Your task to perform on an android device: Open the map Image 0: 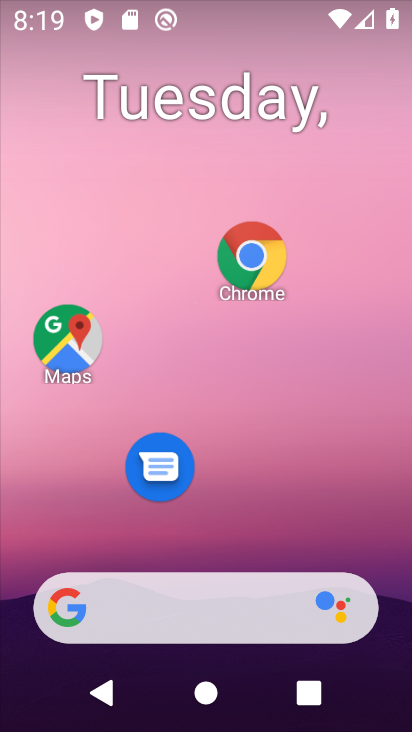
Step 0: click (70, 343)
Your task to perform on an android device: Open the map Image 1: 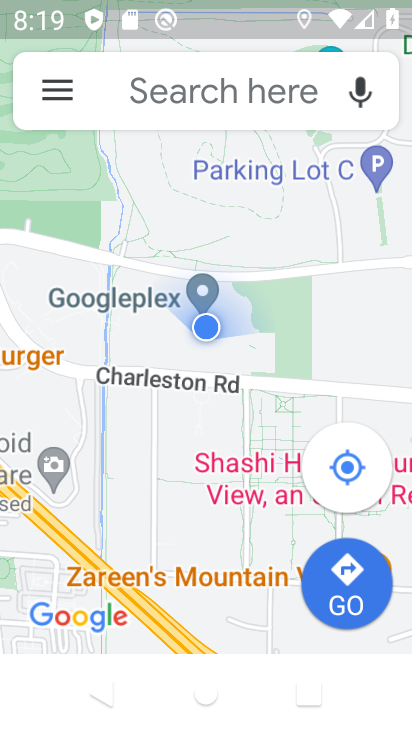
Step 1: task complete